Your task to perform on an android device: What's the weather today? Image 0: 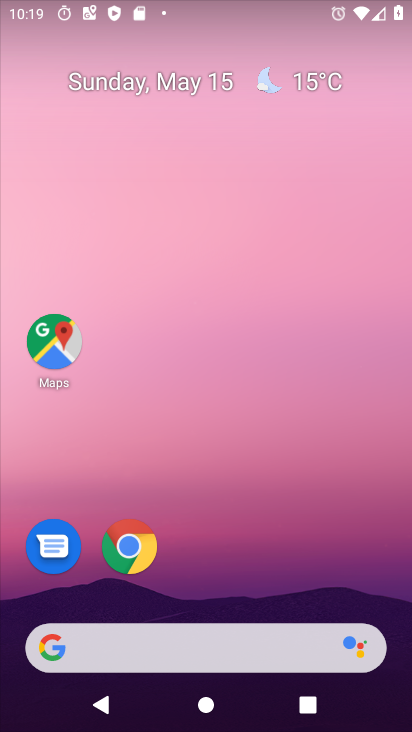
Step 0: drag from (313, 386) to (280, 111)
Your task to perform on an android device: What's the weather today? Image 1: 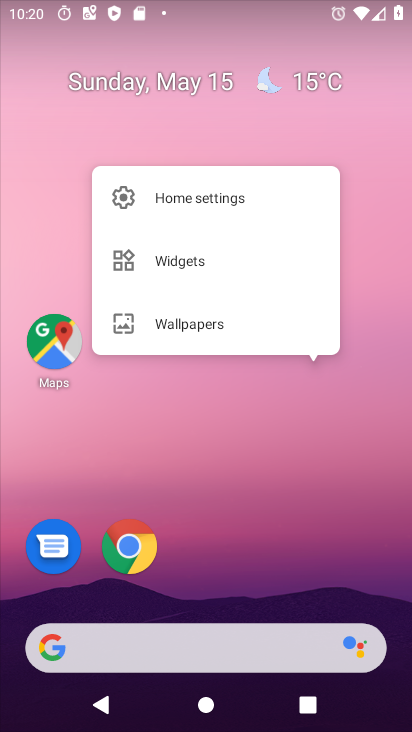
Step 1: click (282, 179)
Your task to perform on an android device: What's the weather today? Image 2: 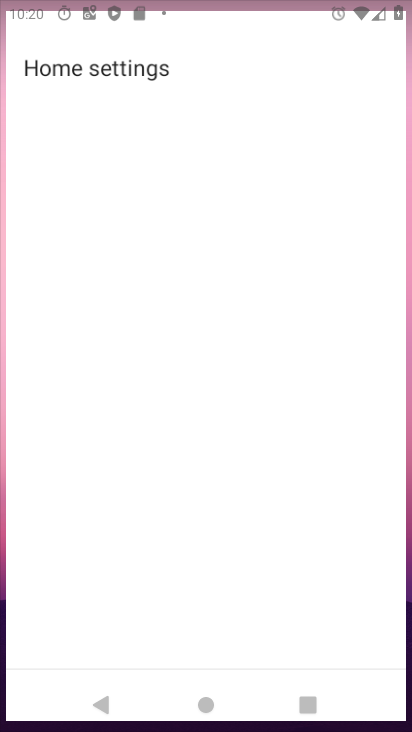
Step 2: drag from (195, 634) to (254, 265)
Your task to perform on an android device: What's the weather today? Image 3: 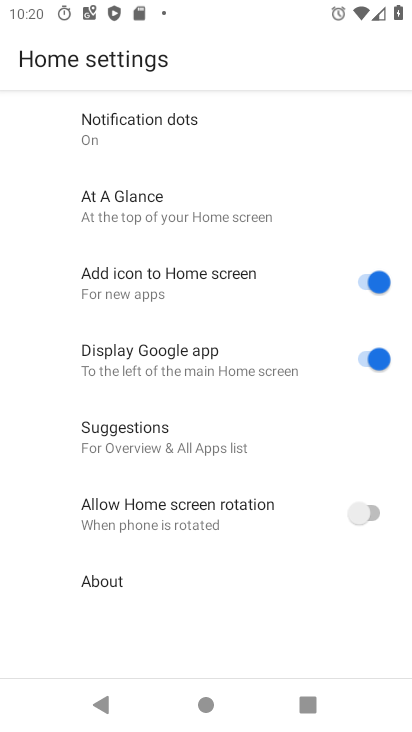
Step 3: press back button
Your task to perform on an android device: What's the weather today? Image 4: 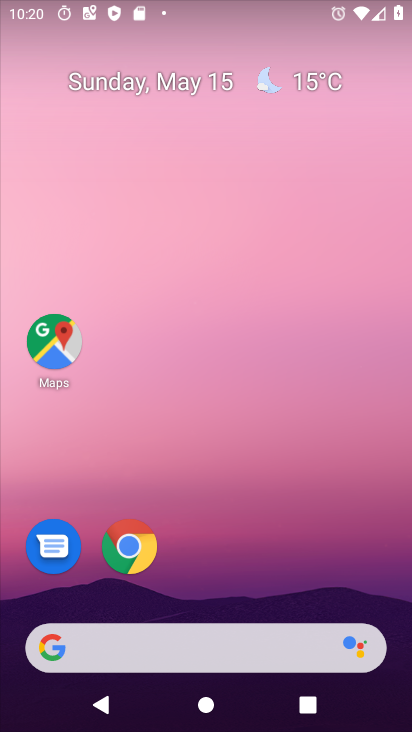
Step 4: drag from (285, 580) to (285, 110)
Your task to perform on an android device: What's the weather today? Image 5: 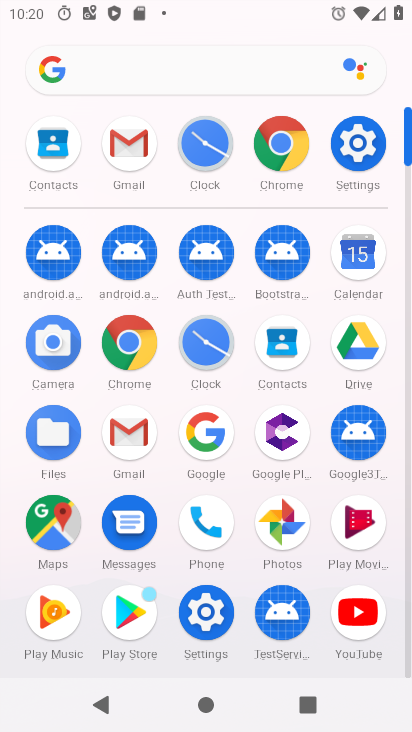
Step 5: press back button
Your task to perform on an android device: What's the weather today? Image 6: 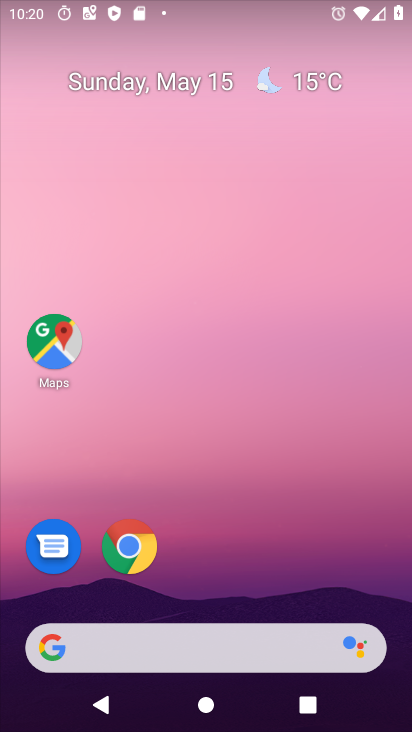
Step 6: drag from (389, 635) to (406, 509)
Your task to perform on an android device: What's the weather today? Image 7: 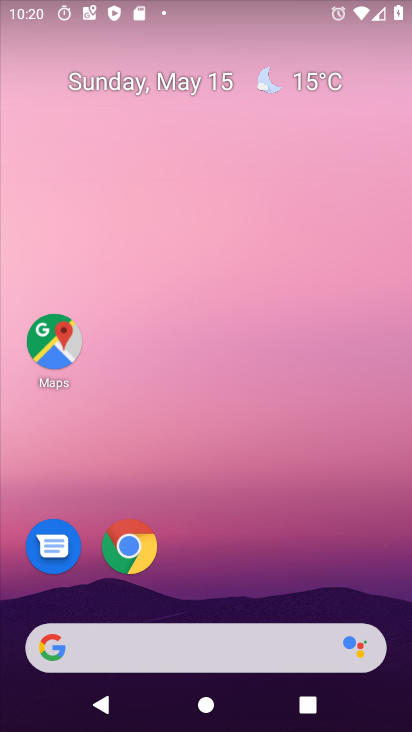
Step 7: drag from (314, 636) to (273, 252)
Your task to perform on an android device: What's the weather today? Image 8: 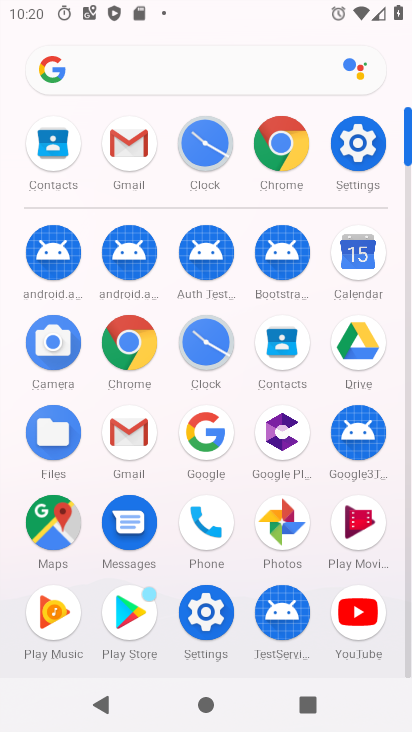
Step 8: press back button
Your task to perform on an android device: What's the weather today? Image 9: 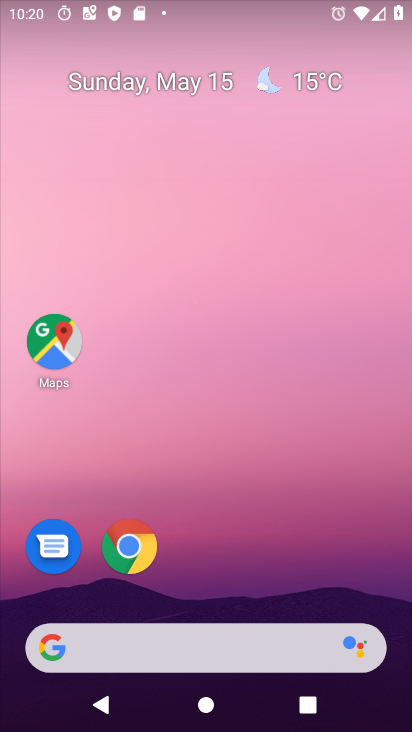
Step 9: drag from (21, 184) to (406, 576)
Your task to perform on an android device: What's the weather today? Image 10: 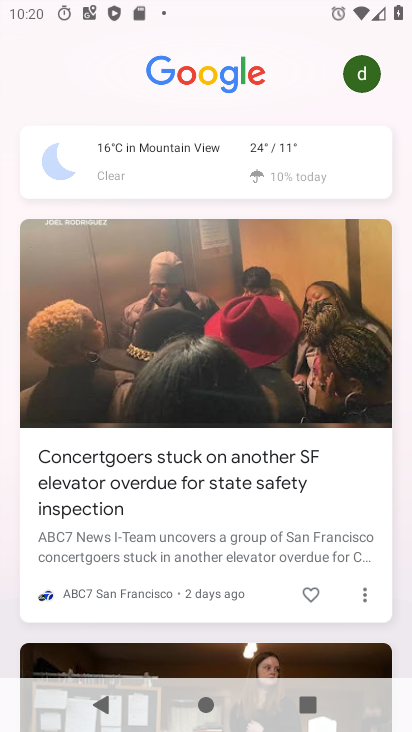
Step 10: click (200, 166)
Your task to perform on an android device: What's the weather today? Image 11: 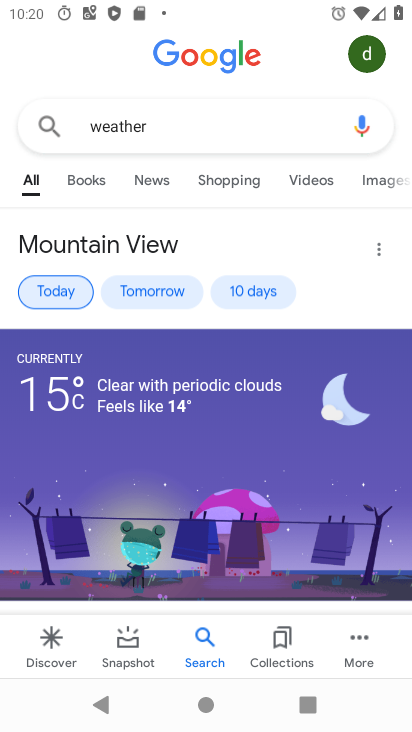
Step 11: task complete